Your task to perform on an android device: Go to Amazon Image 0: 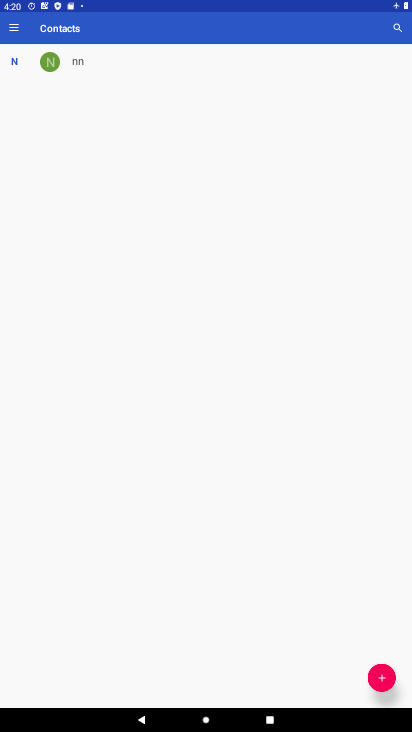
Step 0: press home button
Your task to perform on an android device: Go to Amazon Image 1: 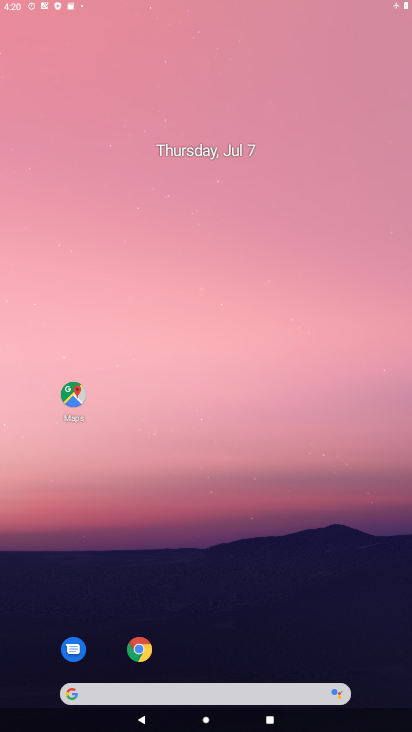
Step 1: drag from (407, 665) to (276, 59)
Your task to perform on an android device: Go to Amazon Image 2: 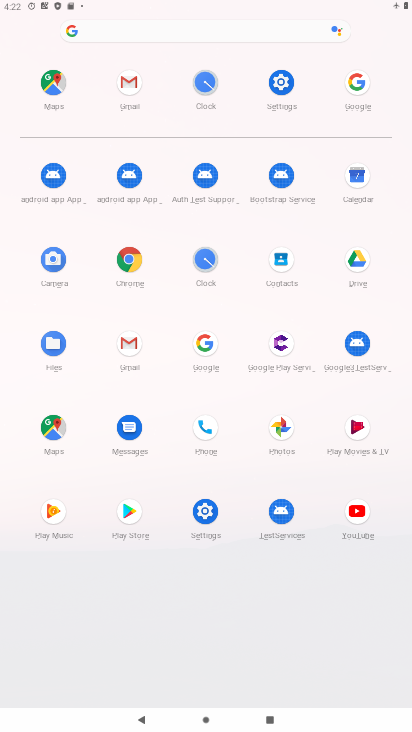
Step 2: click (195, 354)
Your task to perform on an android device: Go to Amazon Image 3: 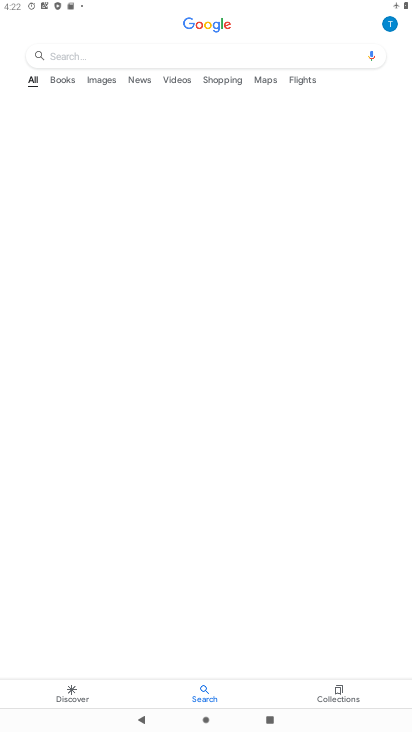
Step 3: click (181, 49)
Your task to perform on an android device: Go to Amazon Image 4: 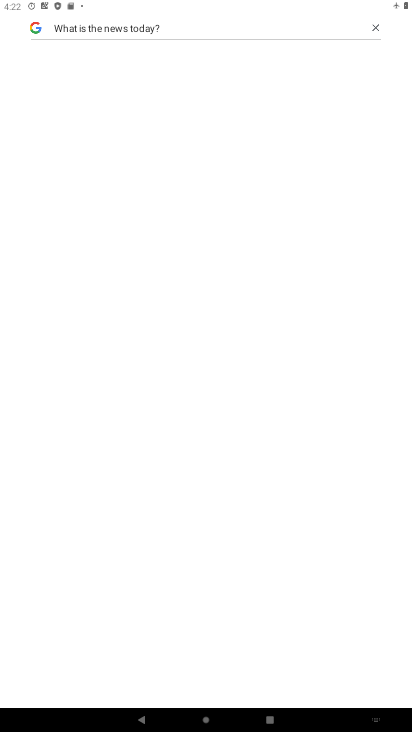
Step 4: click (375, 25)
Your task to perform on an android device: Go to Amazon Image 5: 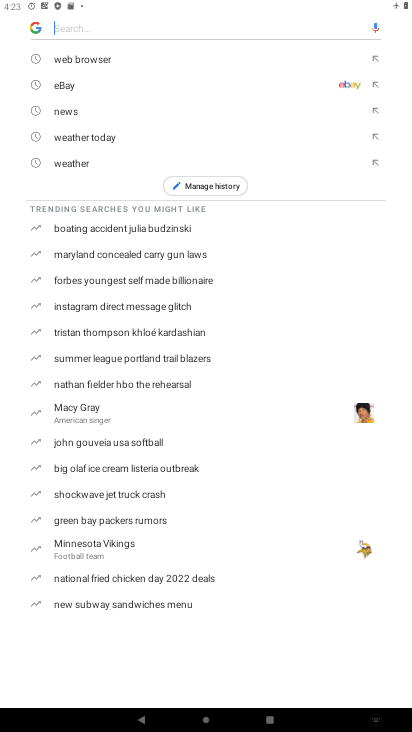
Step 5: type "Go to Amazon"
Your task to perform on an android device: Go to Amazon Image 6: 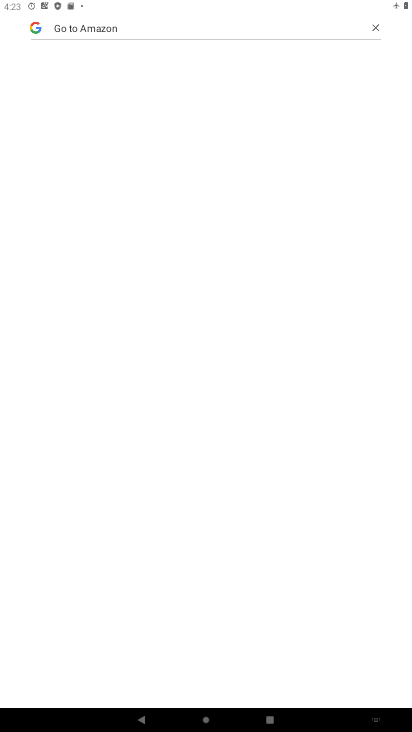
Step 6: task complete